Your task to perform on an android device: turn off location history Image 0: 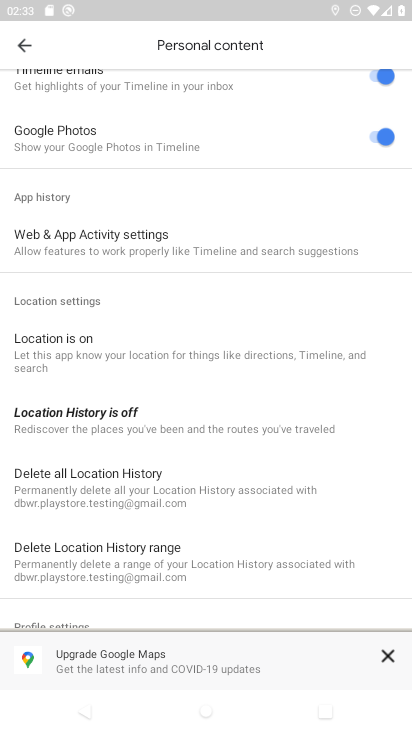
Step 0: press home button
Your task to perform on an android device: turn off location history Image 1: 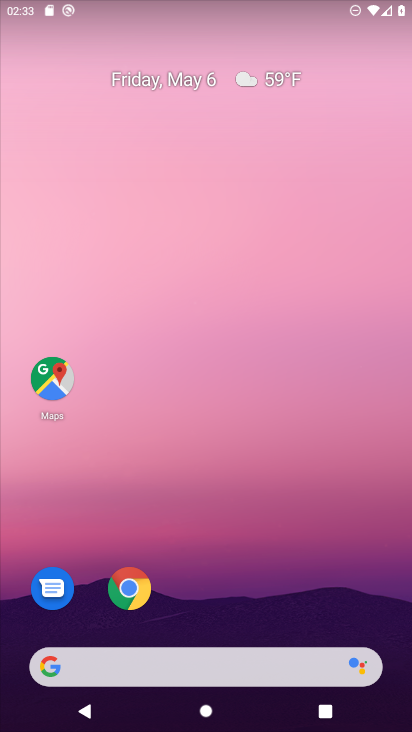
Step 1: drag from (233, 628) to (111, 65)
Your task to perform on an android device: turn off location history Image 2: 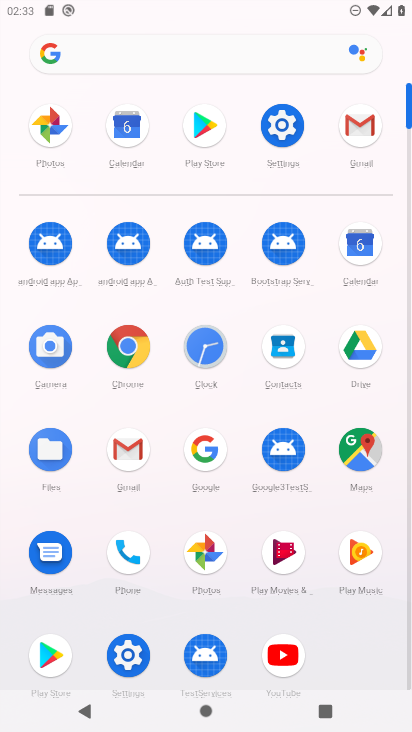
Step 2: click (358, 428)
Your task to perform on an android device: turn off location history Image 3: 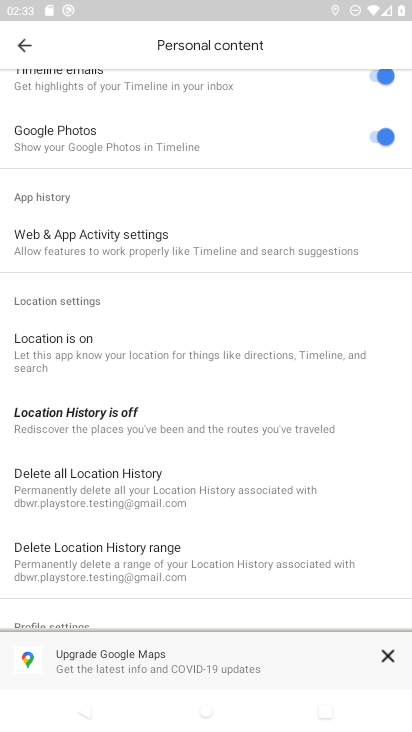
Step 3: click (140, 478)
Your task to perform on an android device: turn off location history Image 4: 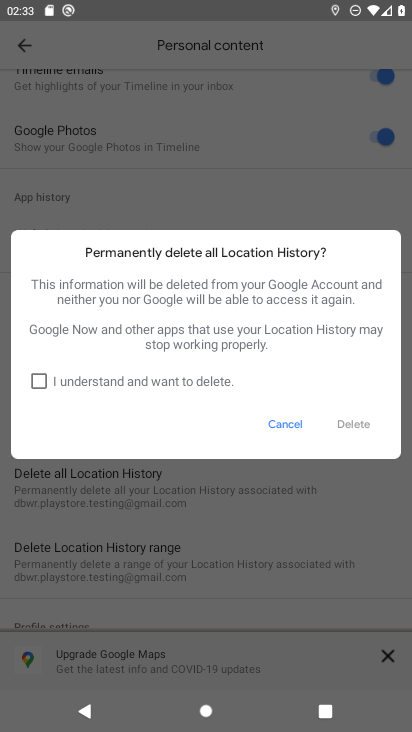
Step 4: click (34, 373)
Your task to perform on an android device: turn off location history Image 5: 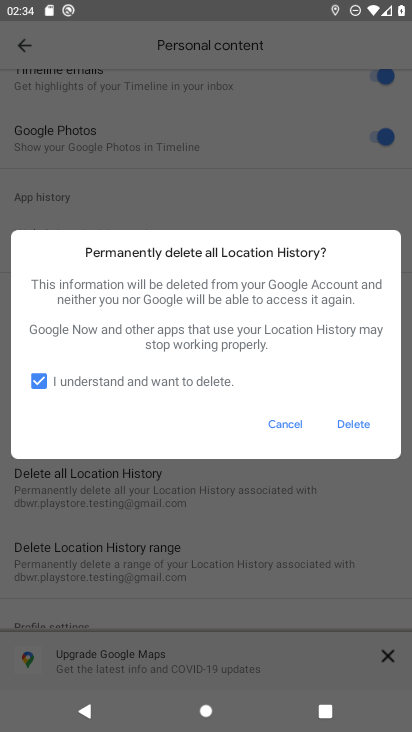
Step 5: click (361, 429)
Your task to perform on an android device: turn off location history Image 6: 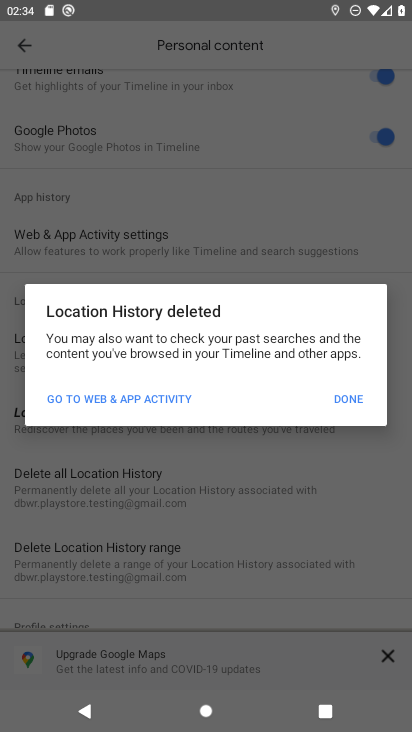
Step 6: click (352, 393)
Your task to perform on an android device: turn off location history Image 7: 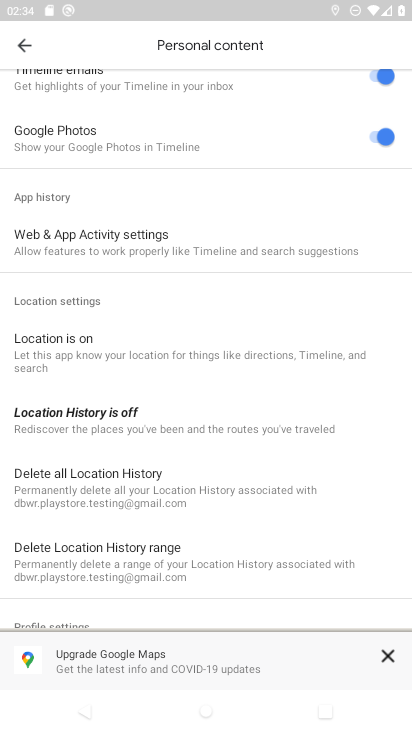
Step 7: task complete